Your task to perform on an android device: all mails in gmail Image 0: 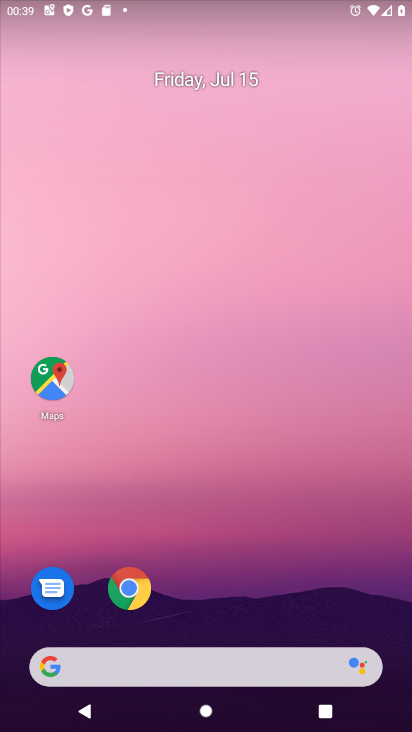
Step 0: drag from (171, 666) to (279, 37)
Your task to perform on an android device: all mails in gmail Image 1: 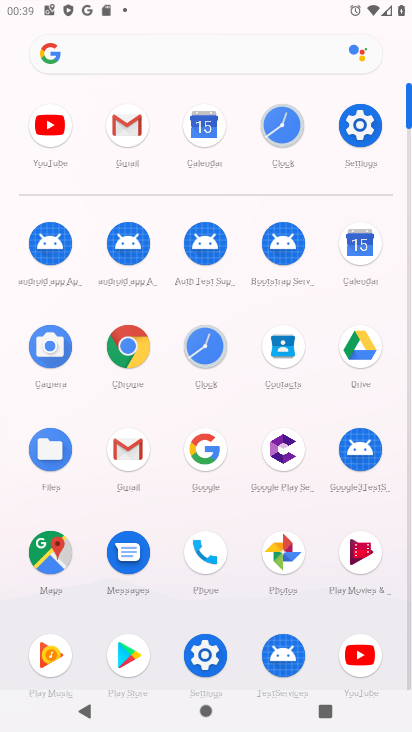
Step 1: click (132, 120)
Your task to perform on an android device: all mails in gmail Image 2: 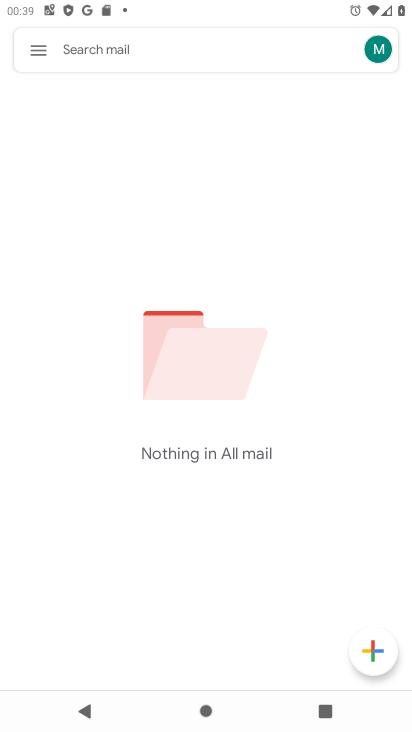
Step 2: task complete